Your task to perform on an android device: Open display settings Image 0: 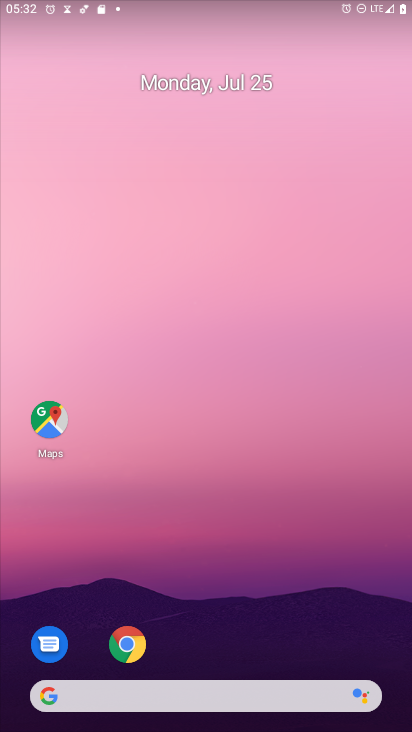
Step 0: press home button
Your task to perform on an android device: Open display settings Image 1: 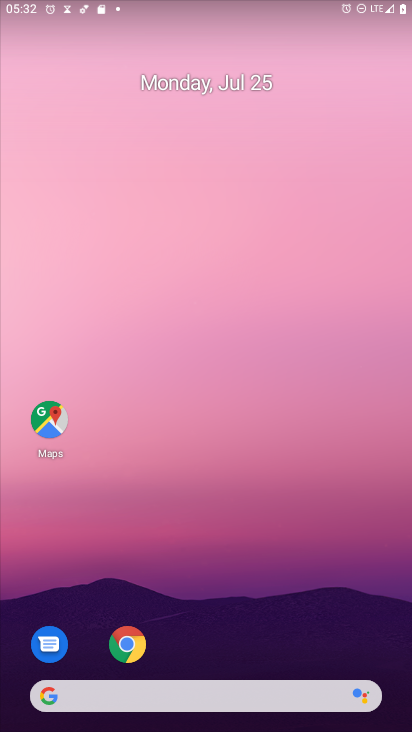
Step 1: drag from (273, 630) to (197, 82)
Your task to perform on an android device: Open display settings Image 2: 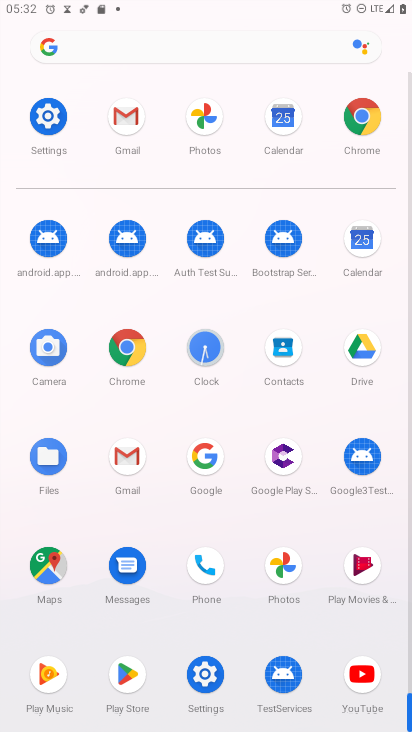
Step 2: click (42, 112)
Your task to perform on an android device: Open display settings Image 3: 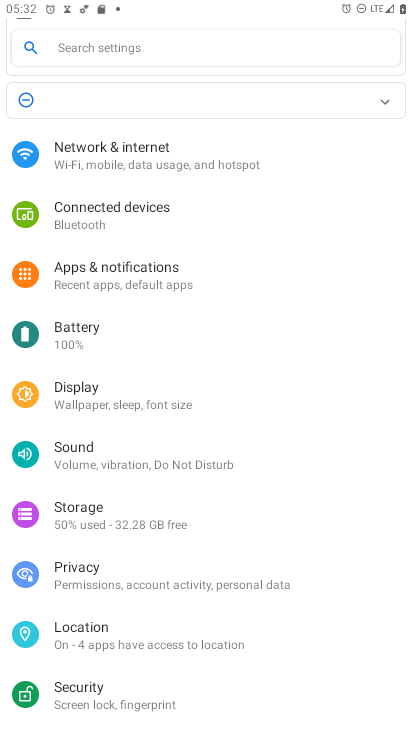
Step 3: click (129, 405)
Your task to perform on an android device: Open display settings Image 4: 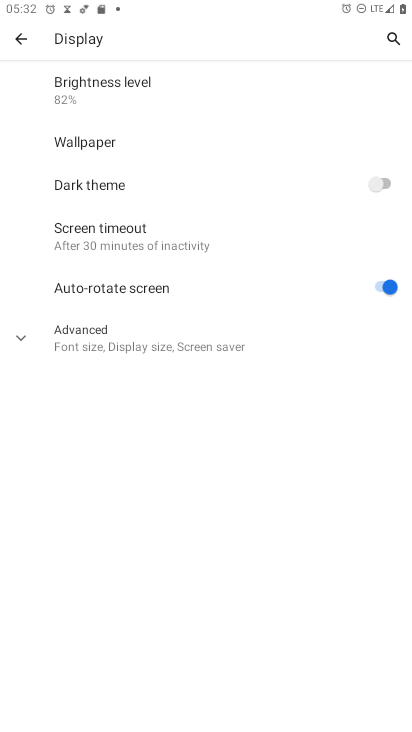
Step 4: task complete